Your task to perform on an android device: Open the Play Movies app and select the watchlist tab. Image 0: 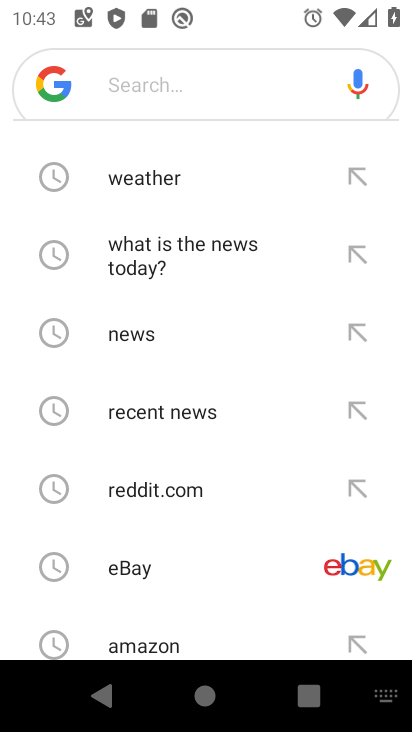
Step 0: press home button
Your task to perform on an android device: Open the Play Movies app and select the watchlist tab. Image 1: 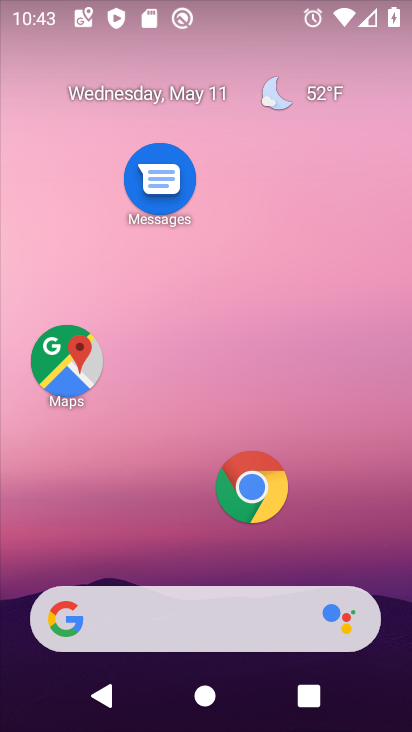
Step 1: drag from (203, 548) to (259, 237)
Your task to perform on an android device: Open the Play Movies app and select the watchlist tab. Image 2: 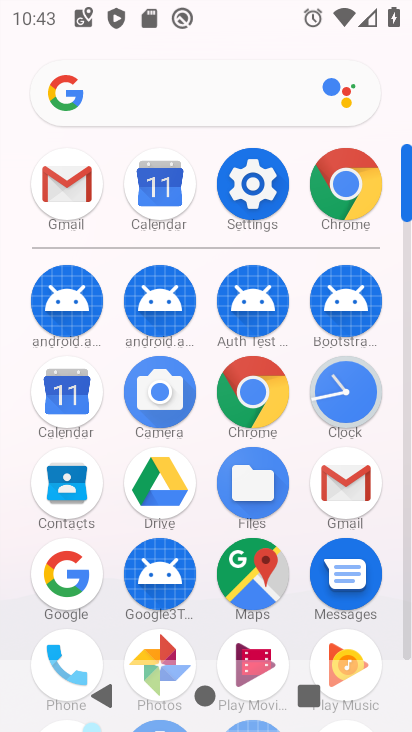
Step 2: drag from (204, 543) to (239, 358)
Your task to perform on an android device: Open the Play Movies app and select the watchlist tab. Image 3: 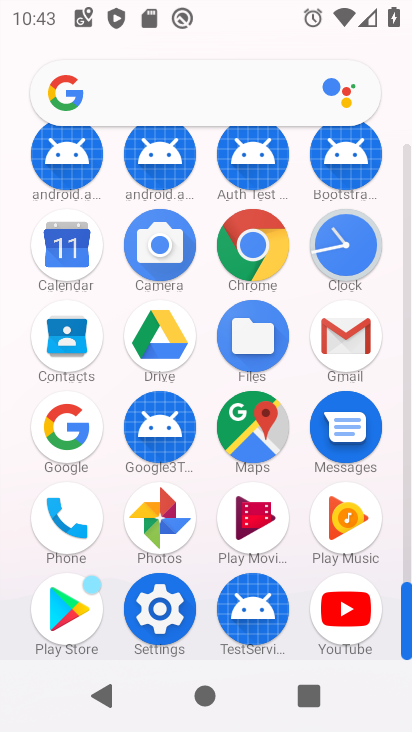
Step 3: click (263, 535)
Your task to perform on an android device: Open the Play Movies app and select the watchlist tab. Image 4: 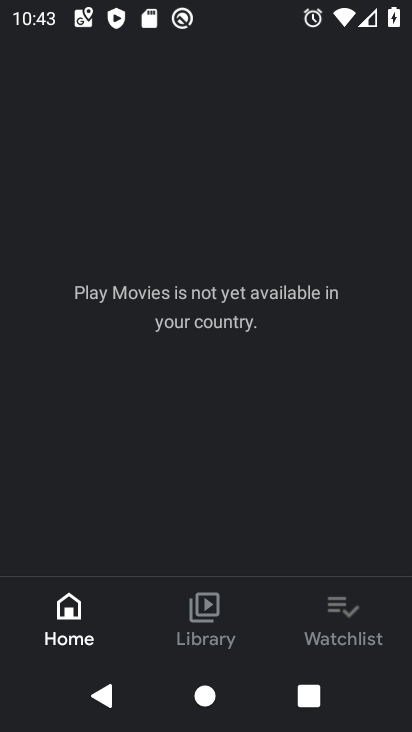
Step 4: click (329, 632)
Your task to perform on an android device: Open the Play Movies app and select the watchlist tab. Image 5: 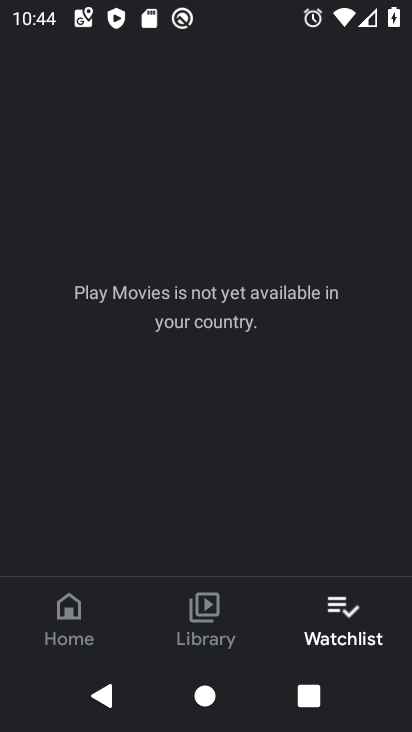
Step 5: task complete